Your task to perform on an android device: Open battery settings Image 0: 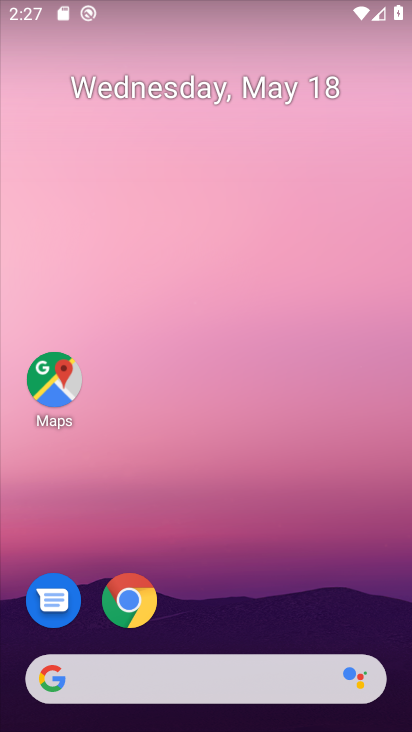
Step 0: drag from (208, 616) to (257, 0)
Your task to perform on an android device: Open battery settings Image 1: 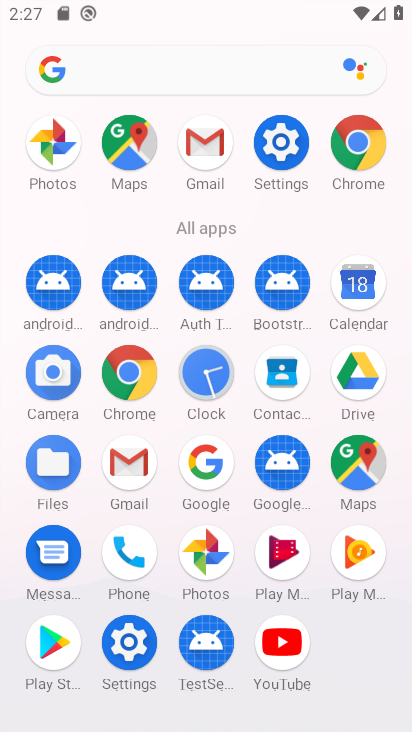
Step 1: click (292, 164)
Your task to perform on an android device: Open battery settings Image 2: 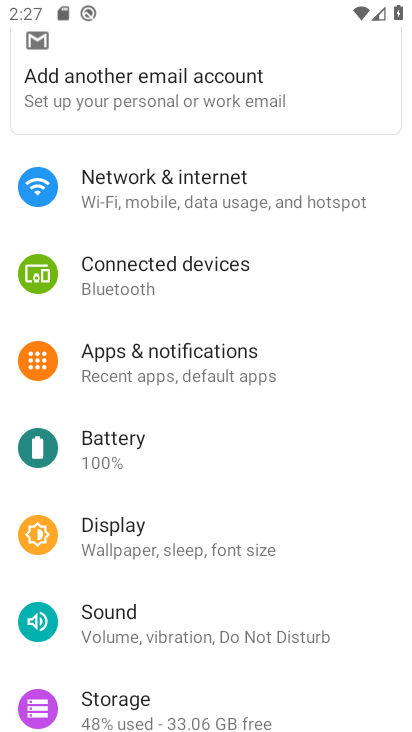
Step 2: click (153, 448)
Your task to perform on an android device: Open battery settings Image 3: 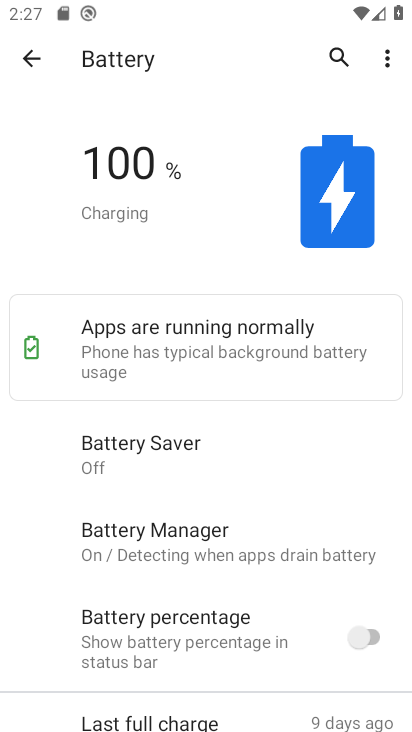
Step 3: task complete